Your task to perform on an android device: Open display settings Image 0: 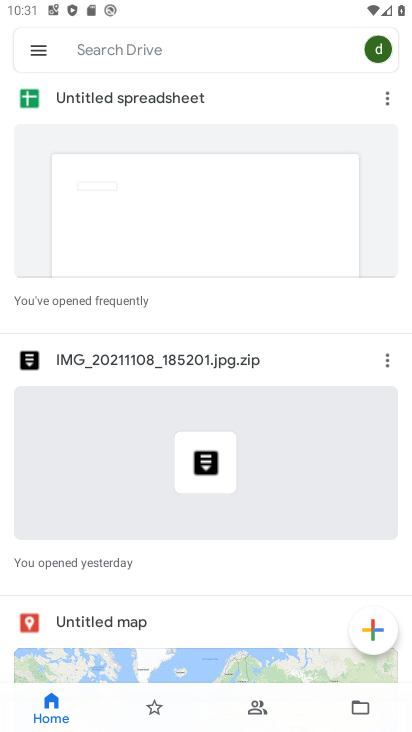
Step 0: press home button
Your task to perform on an android device: Open display settings Image 1: 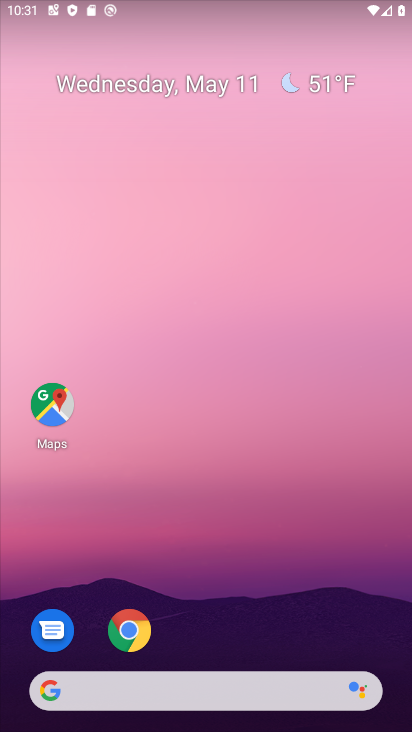
Step 1: drag from (206, 725) to (204, 195)
Your task to perform on an android device: Open display settings Image 2: 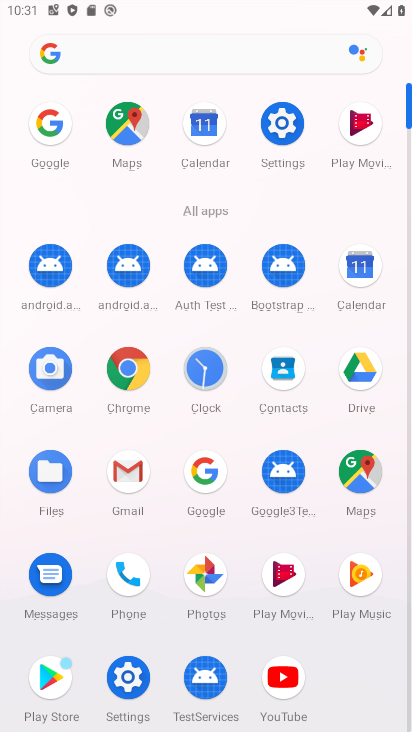
Step 2: click (279, 121)
Your task to perform on an android device: Open display settings Image 3: 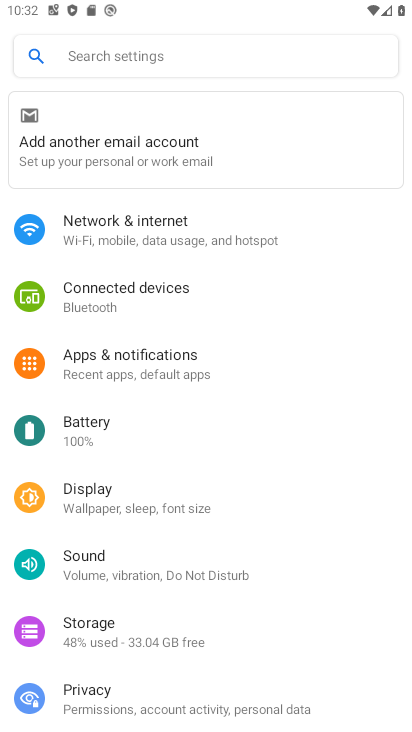
Step 3: click (94, 494)
Your task to perform on an android device: Open display settings Image 4: 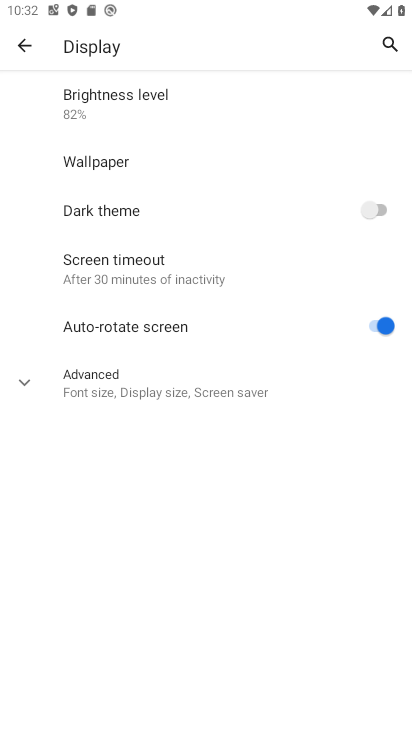
Step 4: task complete